Your task to perform on an android device: Open the web browser Image 0: 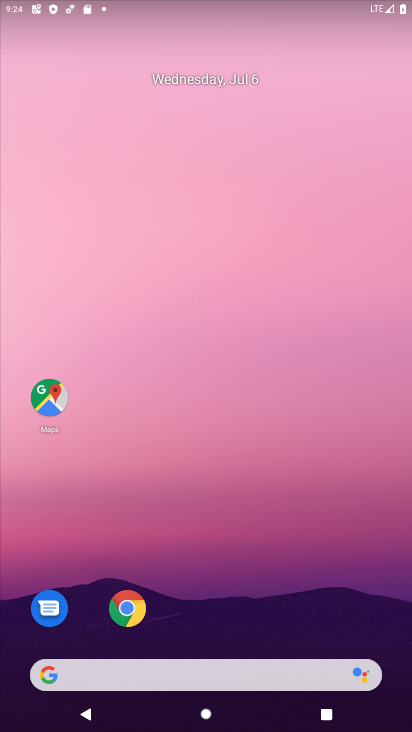
Step 0: click (118, 607)
Your task to perform on an android device: Open the web browser Image 1: 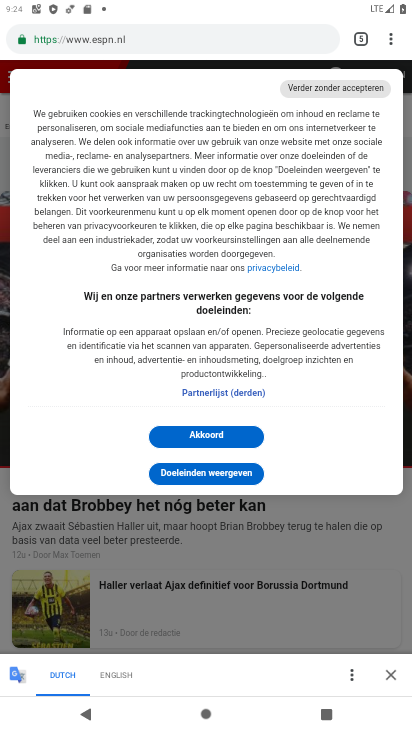
Step 1: click (294, 601)
Your task to perform on an android device: Open the web browser Image 2: 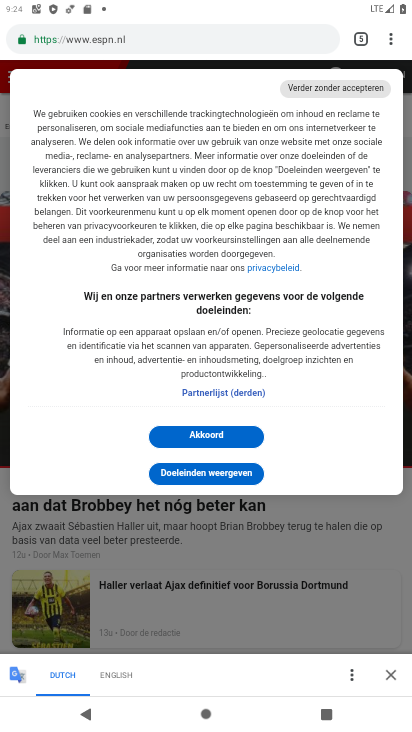
Step 2: click (214, 439)
Your task to perform on an android device: Open the web browser Image 3: 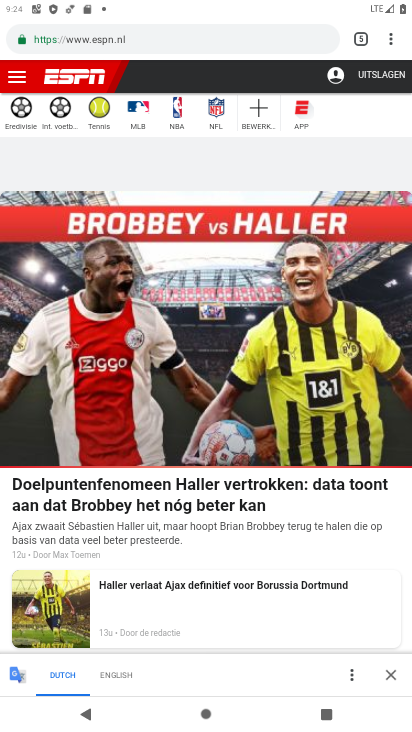
Step 3: task complete